Your task to perform on an android device: change notification settings in the gmail app Image 0: 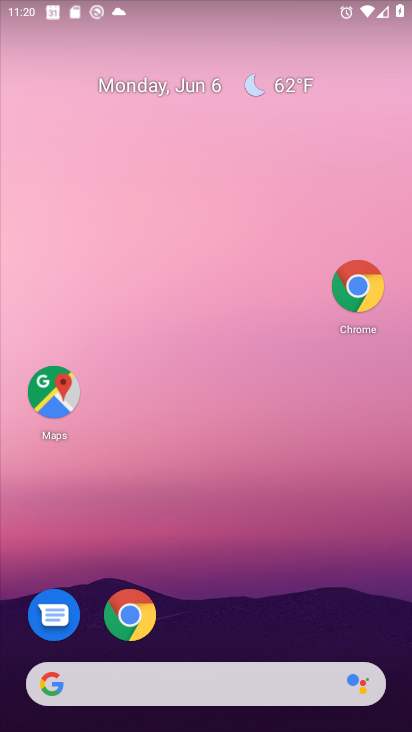
Step 0: click (174, 55)
Your task to perform on an android device: change notification settings in the gmail app Image 1: 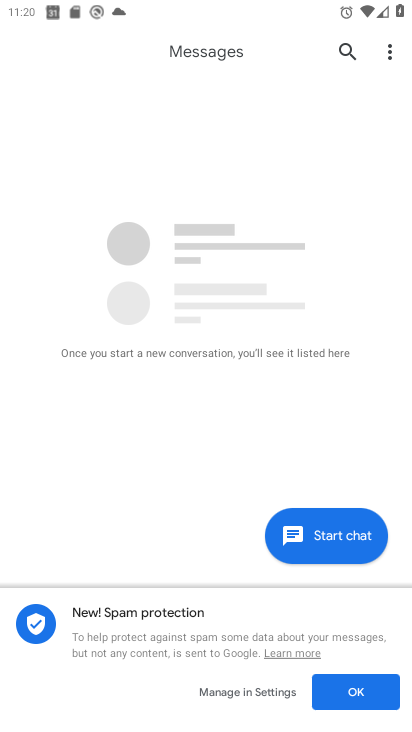
Step 1: click (356, 685)
Your task to perform on an android device: change notification settings in the gmail app Image 2: 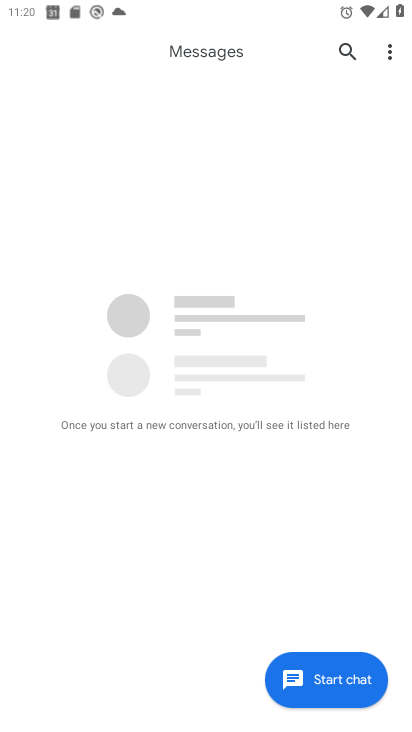
Step 2: press back button
Your task to perform on an android device: change notification settings in the gmail app Image 3: 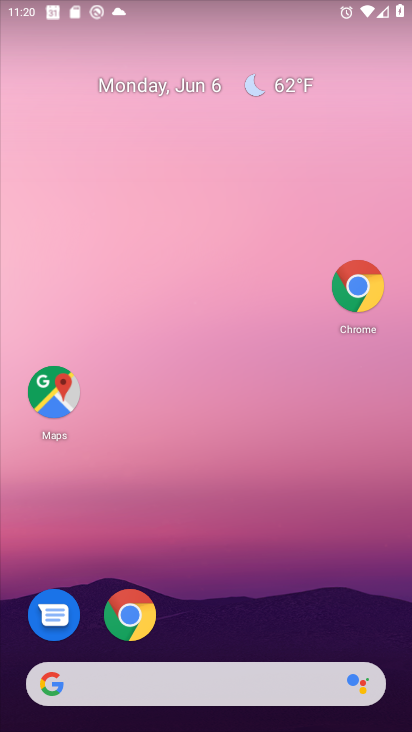
Step 3: drag from (288, 604) to (194, 158)
Your task to perform on an android device: change notification settings in the gmail app Image 4: 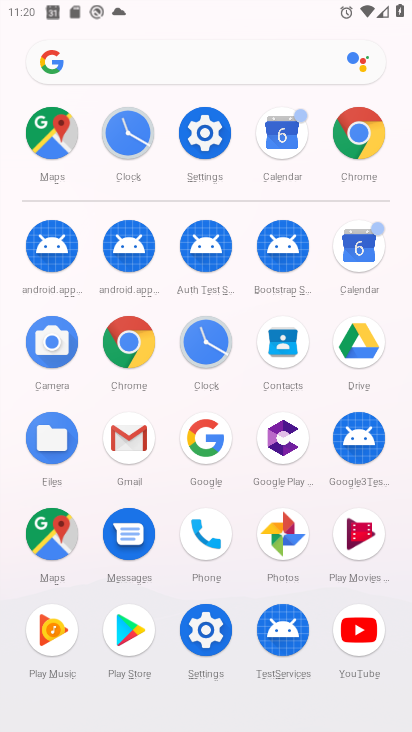
Step 4: click (122, 433)
Your task to perform on an android device: change notification settings in the gmail app Image 5: 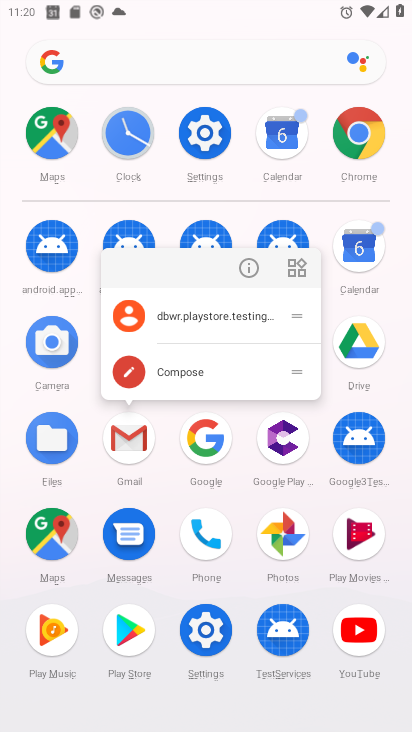
Step 5: click (130, 437)
Your task to perform on an android device: change notification settings in the gmail app Image 6: 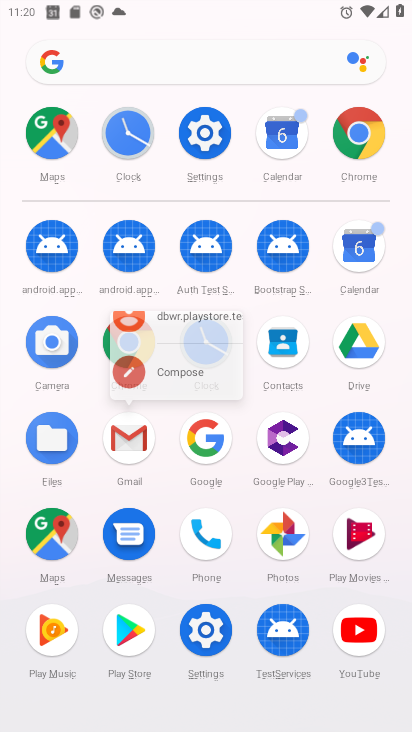
Step 6: click (130, 437)
Your task to perform on an android device: change notification settings in the gmail app Image 7: 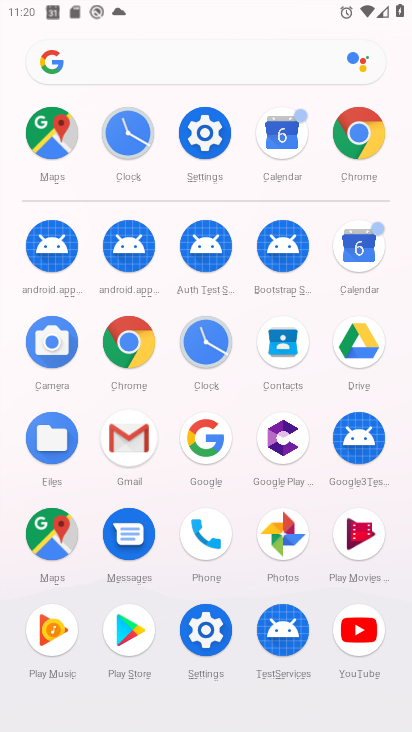
Step 7: click (127, 434)
Your task to perform on an android device: change notification settings in the gmail app Image 8: 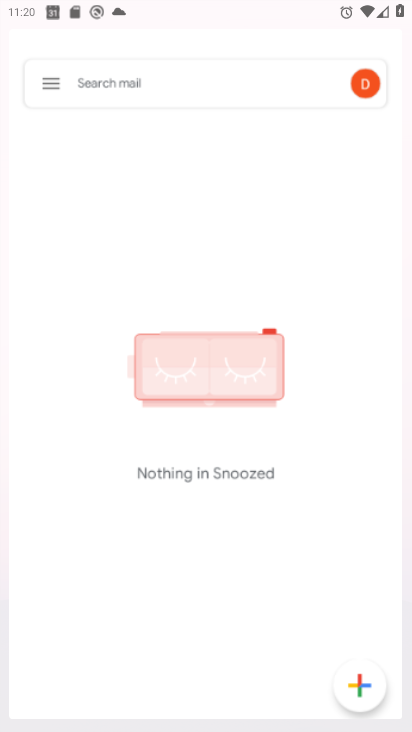
Step 8: click (127, 434)
Your task to perform on an android device: change notification settings in the gmail app Image 9: 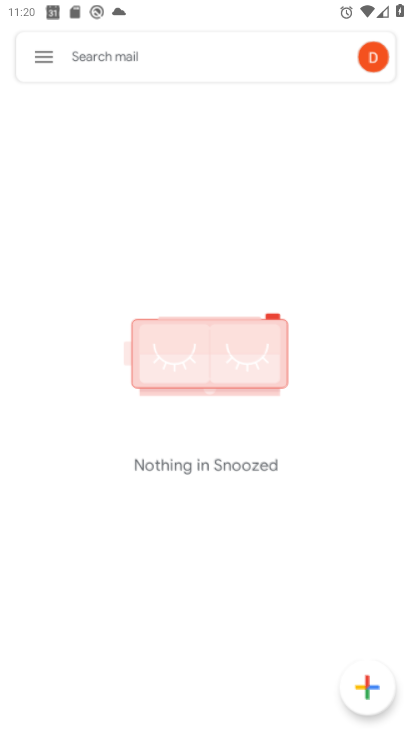
Step 9: click (132, 438)
Your task to perform on an android device: change notification settings in the gmail app Image 10: 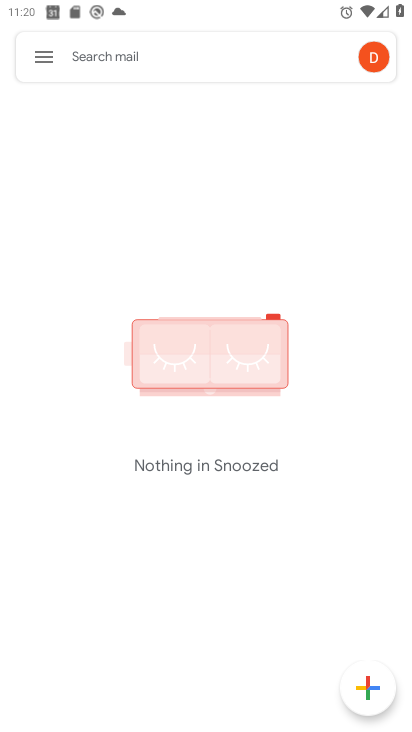
Step 10: click (40, 64)
Your task to perform on an android device: change notification settings in the gmail app Image 11: 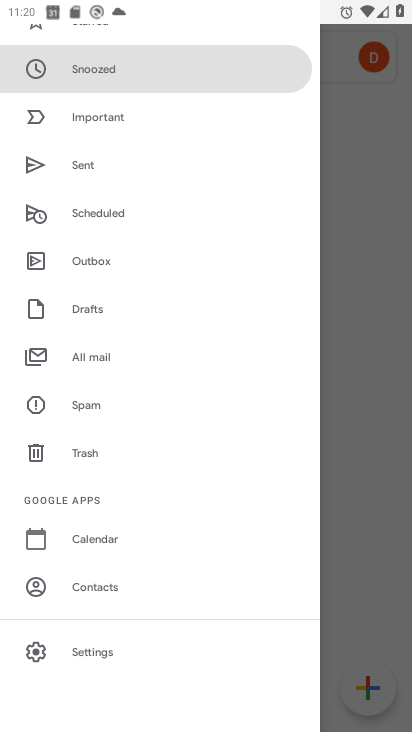
Step 11: drag from (86, 245) to (115, 517)
Your task to perform on an android device: change notification settings in the gmail app Image 12: 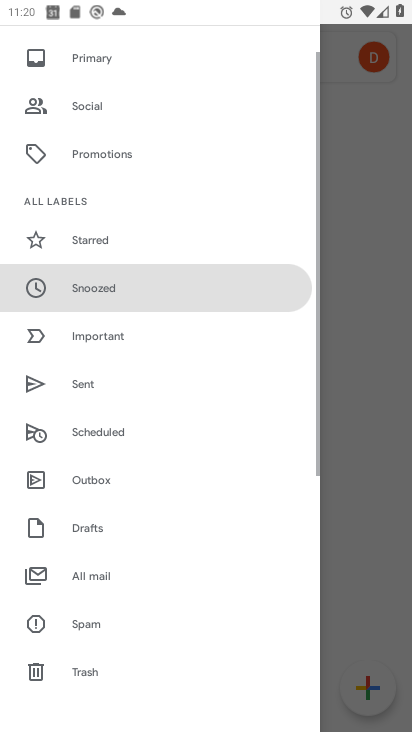
Step 12: drag from (123, 256) to (143, 694)
Your task to perform on an android device: change notification settings in the gmail app Image 13: 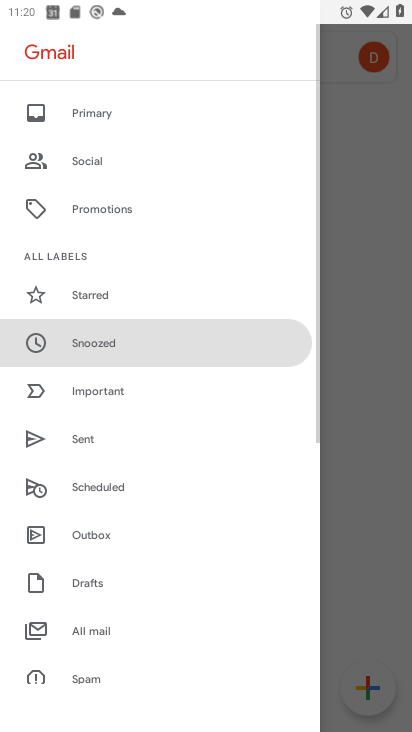
Step 13: drag from (127, 510) to (173, 81)
Your task to perform on an android device: change notification settings in the gmail app Image 14: 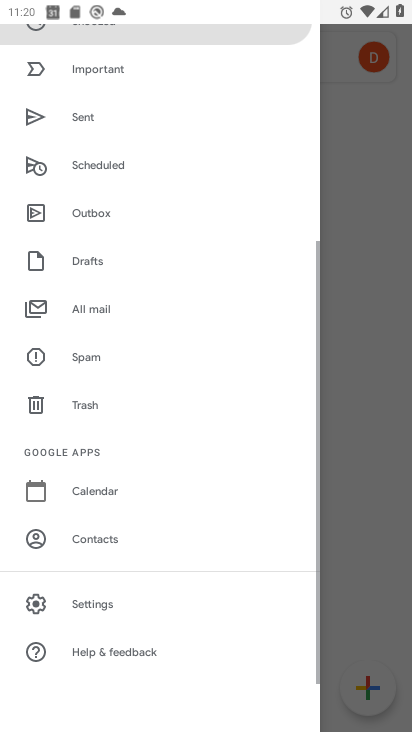
Step 14: drag from (163, 562) to (129, 31)
Your task to perform on an android device: change notification settings in the gmail app Image 15: 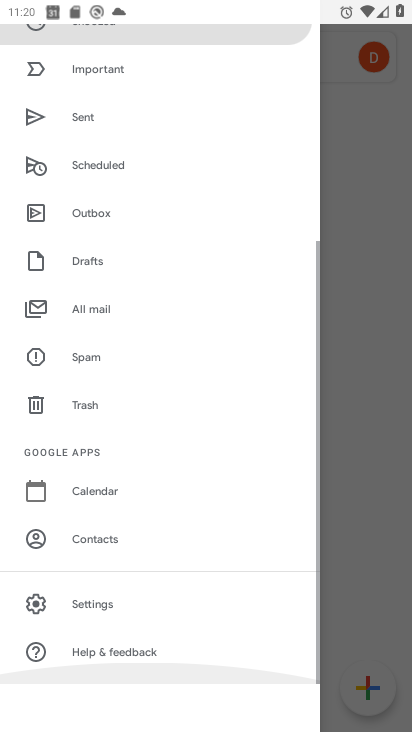
Step 15: drag from (183, 350) to (183, 58)
Your task to perform on an android device: change notification settings in the gmail app Image 16: 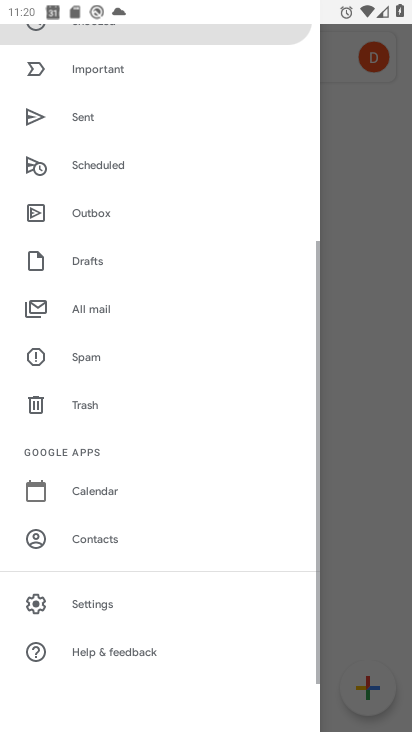
Step 16: click (95, 596)
Your task to perform on an android device: change notification settings in the gmail app Image 17: 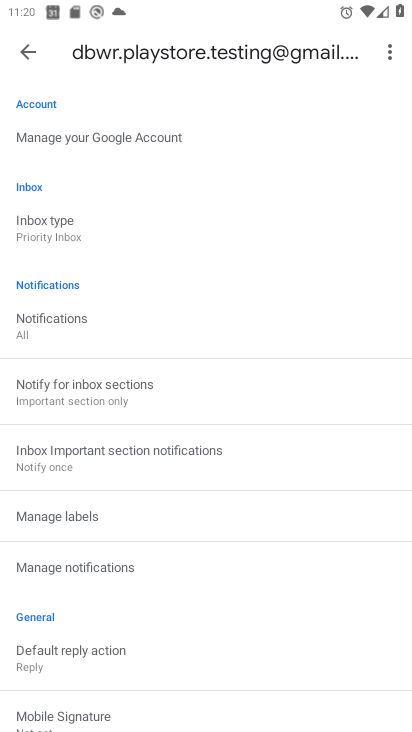
Step 17: click (45, 319)
Your task to perform on an android device: change notification settings in the gmail app Image 18: 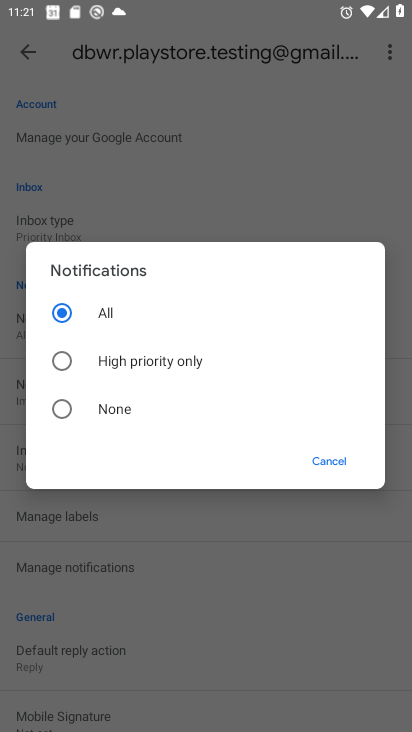
Step 18: click (65, 358)
Your task to perform on an android device: change notification settings in the gmail app Image 19: 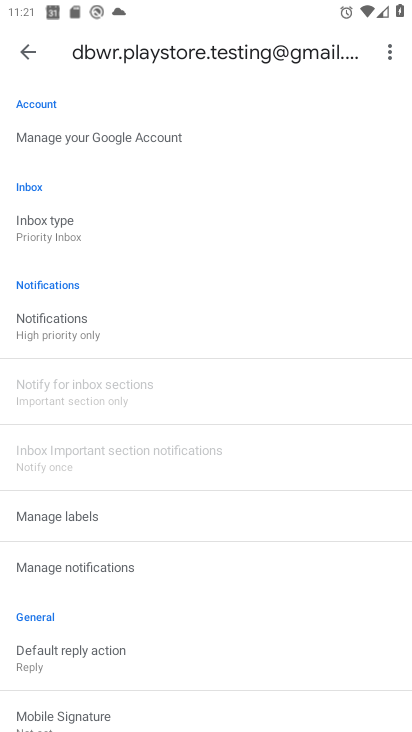
Step 19: task complete